Your task to perform on an android device: Open accessibility settings Image 0: 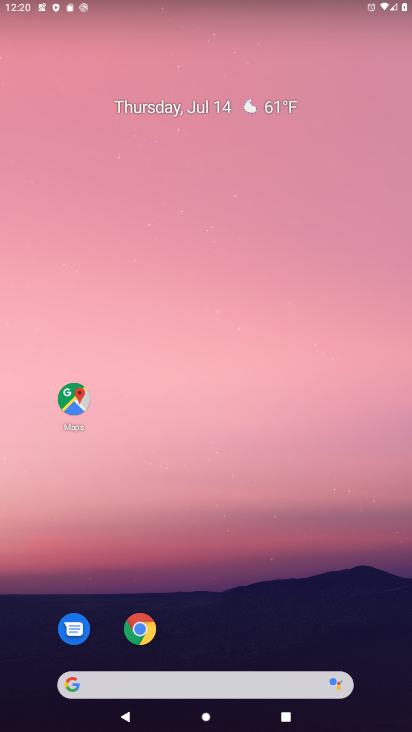
Step 0: drag from (278, 579) to (196, 151)
Your task to perform on an android device: Open accessibility settings Image 1: 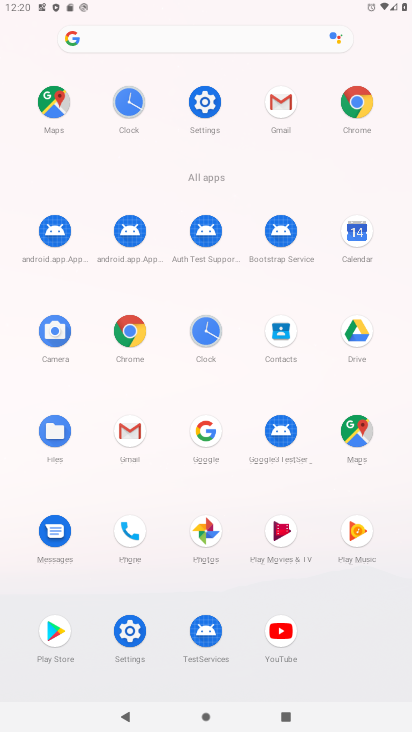
Step 1: click (203, 105)
Your task to perform on an android device: Open accessibility settings Image 2: 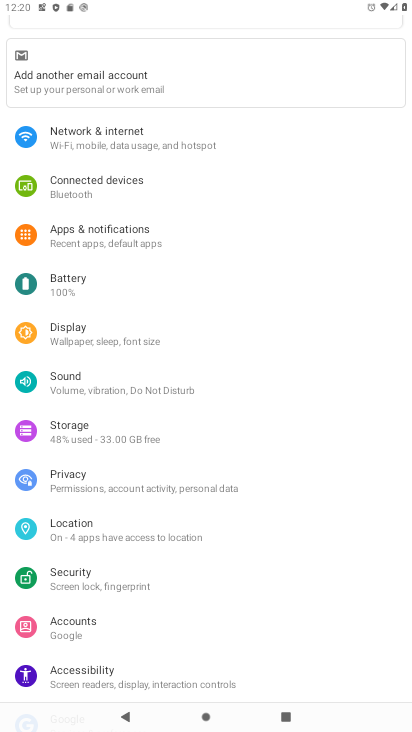
Step 2: click (93, 664)
Your task to perform on an android device: Open accessibility settings Image 3: 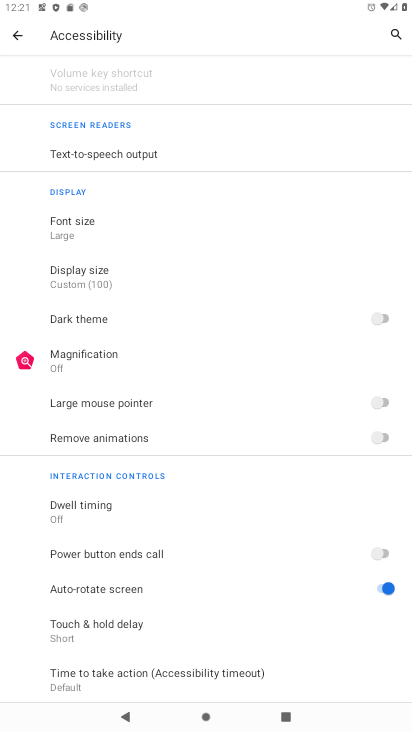
Step 3: task complete